Your task to perform on an android device: turn on notifications settings in the gmail app Image 0: 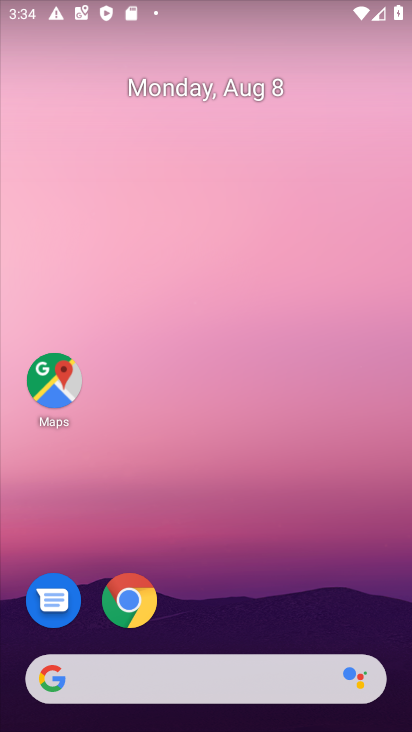
Step 0: drag from (393, 698) to (366, 114)
Your task to perform on an android device: turn on notifications settings in the gmail app Image 1: 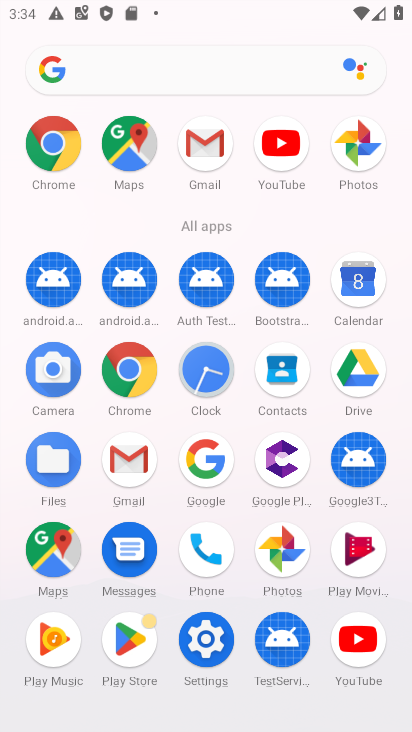
Step 1: click (132, 461)
Your task to perform on an android device: turn on notifications settings in the gmail app Image 2: 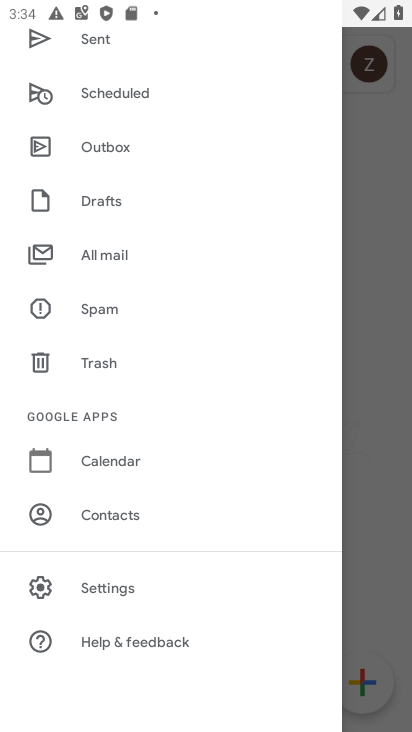
Step 2: click (83, 582)
Your task to perform on an android device: turn on notifications settings in the gmail app Image 3: 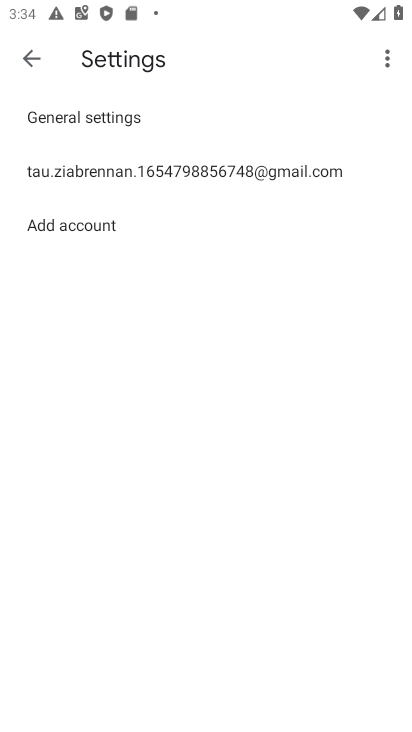
Step 3: click (151, 165)
Your task to perform on an android device: turn on notifications settings in the gmail app Image 4: 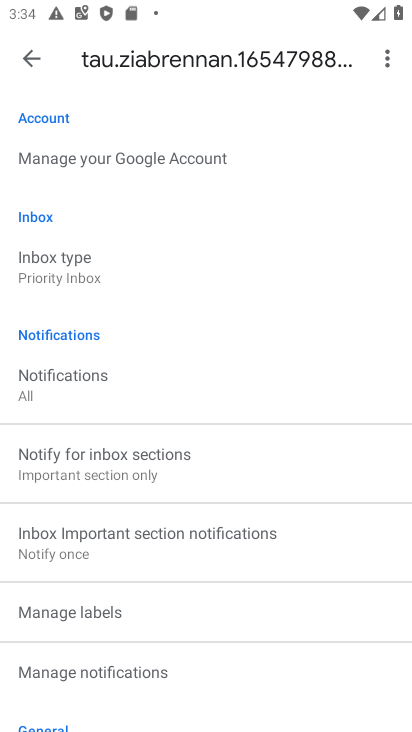
Step 4: click (37, 371)
Your task to perform on an android device: turn on notifications settings in the gmail app Image 5: 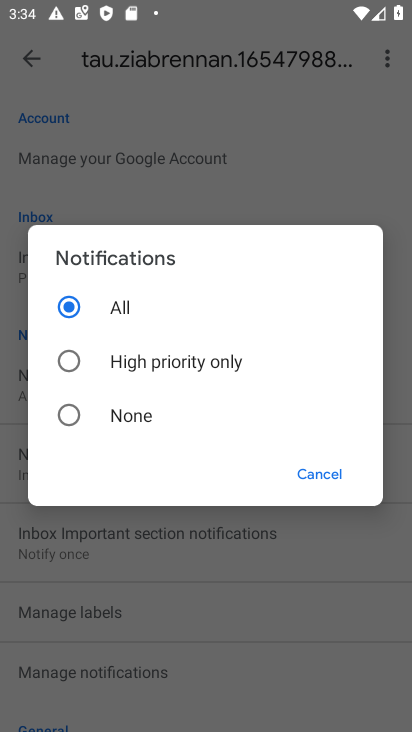
Step 5: task complete